Your task to perform on an android device: Open the stopwatch Image 0: 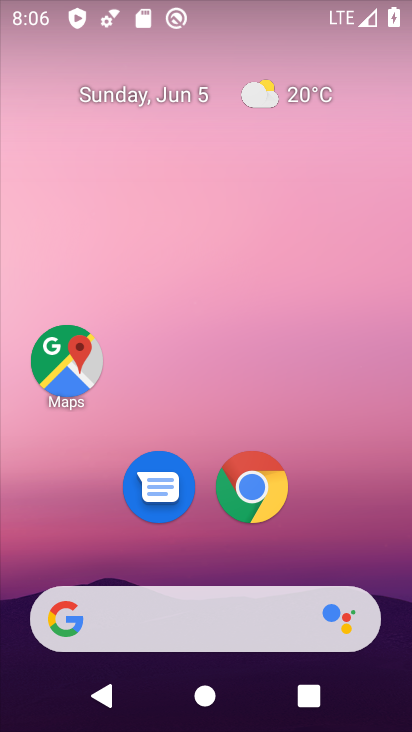
Step 0: drag from (207, 552) to (202, 199)
Your task to perform on an android device: Open the stopwatch Image 1: 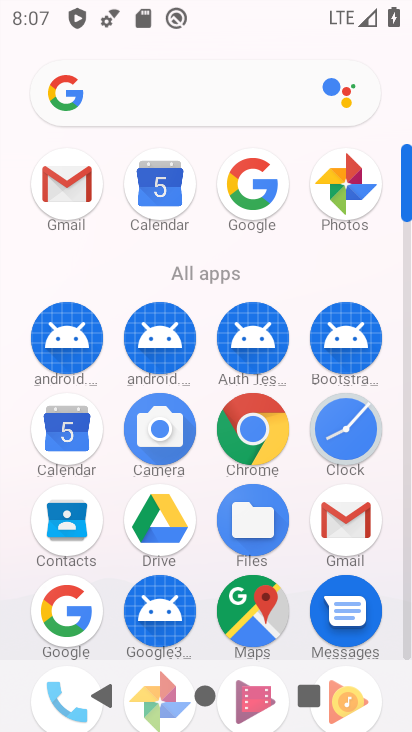
Step 1: click (323, 441)
Your task to perform on an android device: Open the stopwatch Image 2: 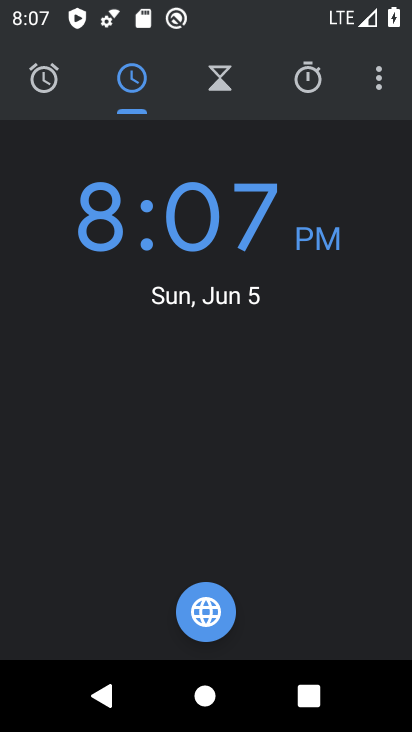
Step 2: click (317, 79)
Your task to perform on an android device: Open the stopwatch Image 3: 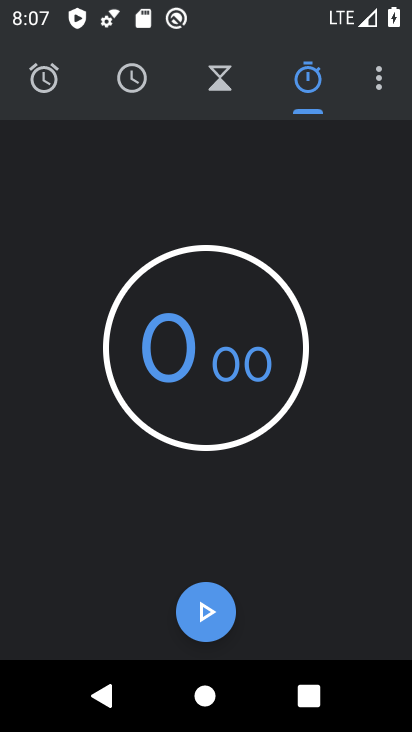
Step 3: task complete